Your task to perform on an android device: Is it going to rain this weekend? Image 0: 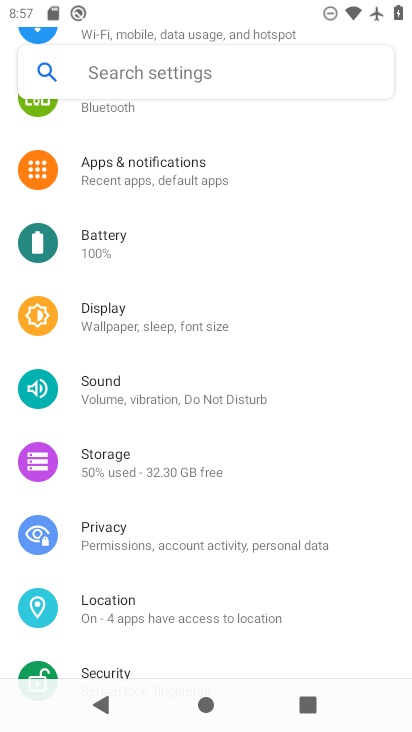
Step 0: press home button
Your task to perform on an android device: Is it going to rain this weekend? Image 1: 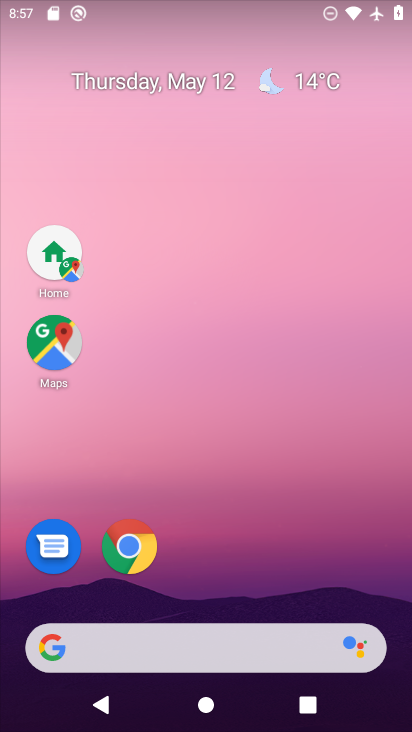
Step 1: click (326, 77)
Your task to perform on an android device: Is it going to rain this weekend? Image 2: 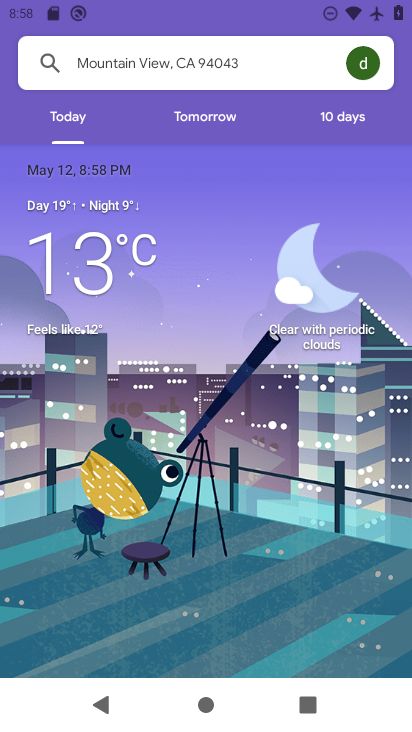
Step 2: click (371, 121)
Your task to perform on an android device: Is it going to rain this weekend? Image 3: 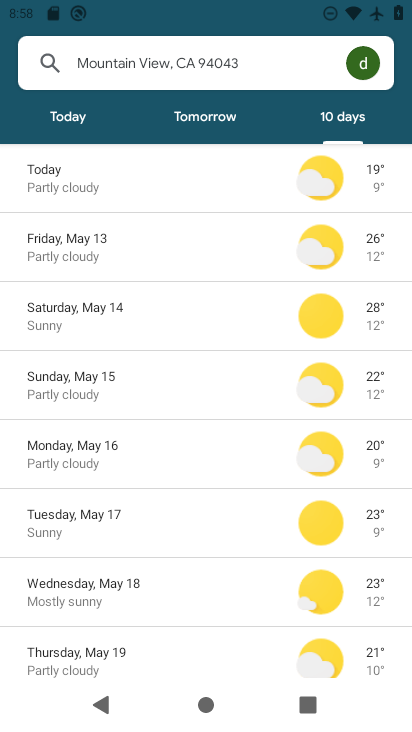
Step 3: click (147, 320)
Your task to perform on an android device: Is it going to rain this weekend? Image 4: 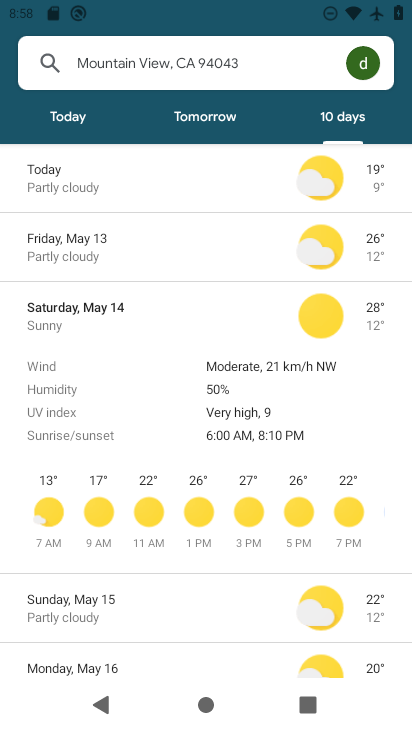
Step 4: task complete